Your task to perform on an android device: open device folders in google photos Image 0: 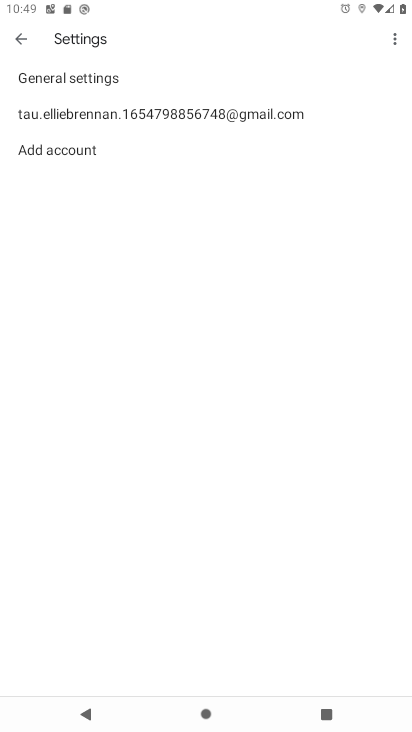
Step 0: press home button
Your task to perform on an android device: open device folders in google photos Image 1: 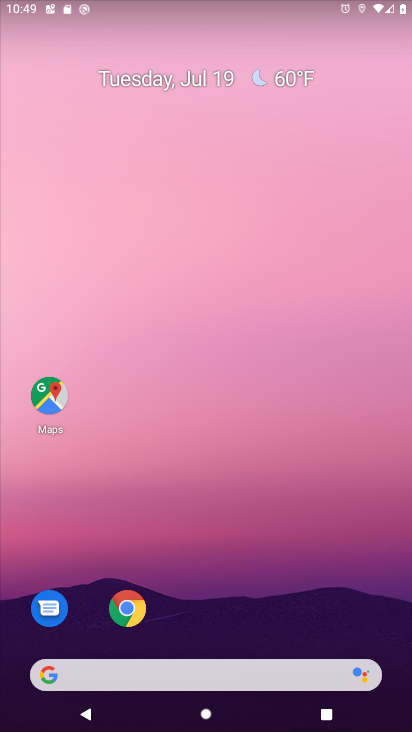
Step 1: drag from (190, 629) to (182, 11)
Your task to perform on an android device: open device folders in google photos Image 2: 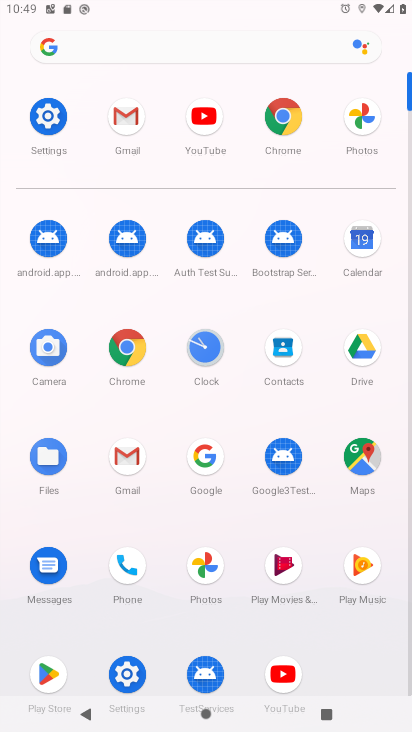
Step 2: click (206, 582)
Your task to perform on an android device: open device folders in google photos Image 3: 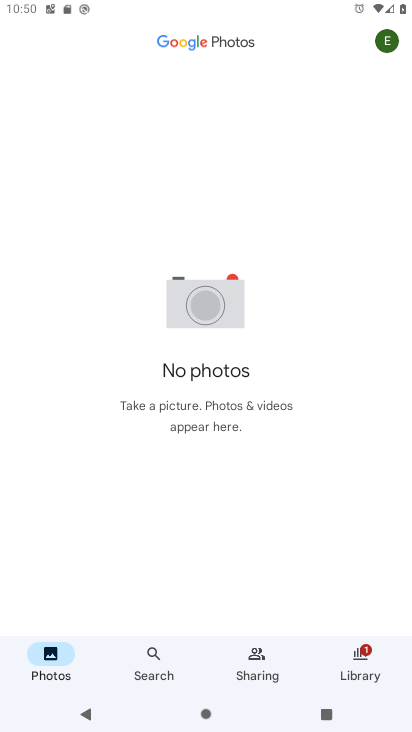
Step 3: click (373, 60)
Your task to perform on an android device: open device folders in google photos Image 4: 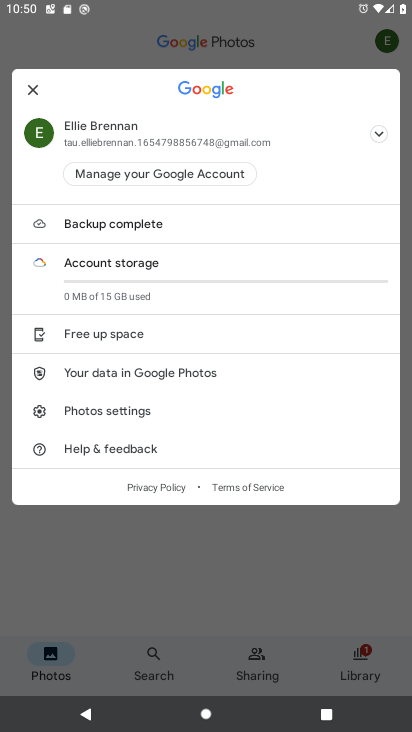
Step 4: click (100, 541)
Your task to perform on an android device: open device folders in google photos Image 5: 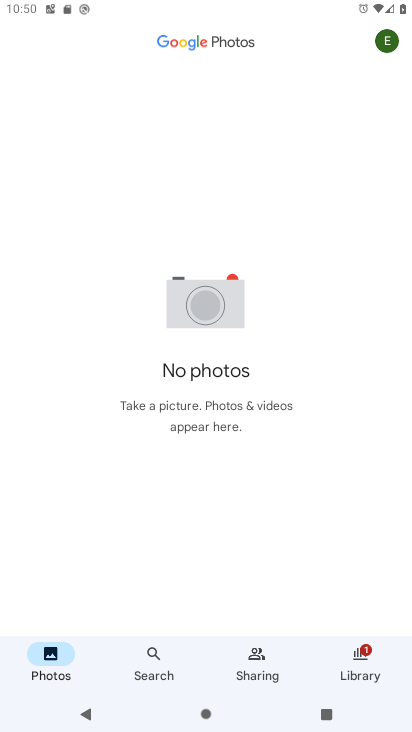
Step 5: click (260, 662)
Your task to perform on an android device: open device folders in google photos Image 6: 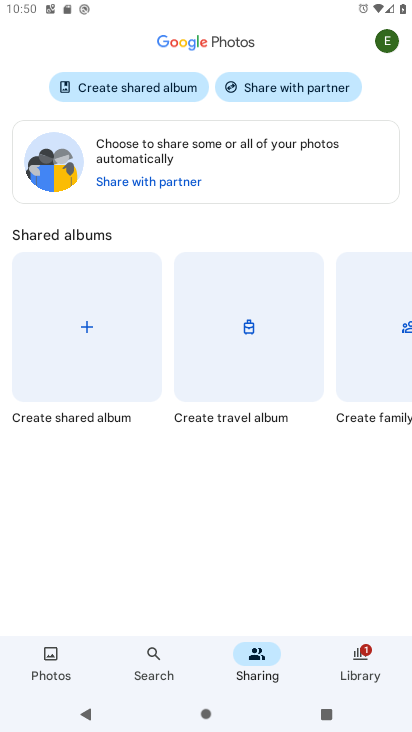
Step 6: click (362, 646)
Your task to perform on an android device: open device folders in google photos Image 7: 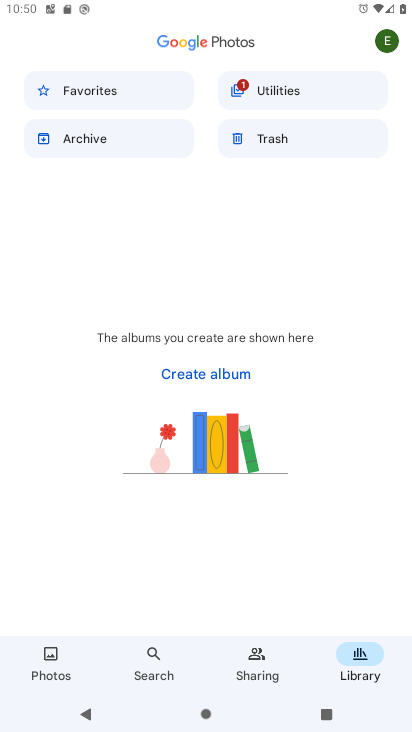
Step 7: click (380, 45)
Your task to perform on an android device: open device folders in google photos Image 8: 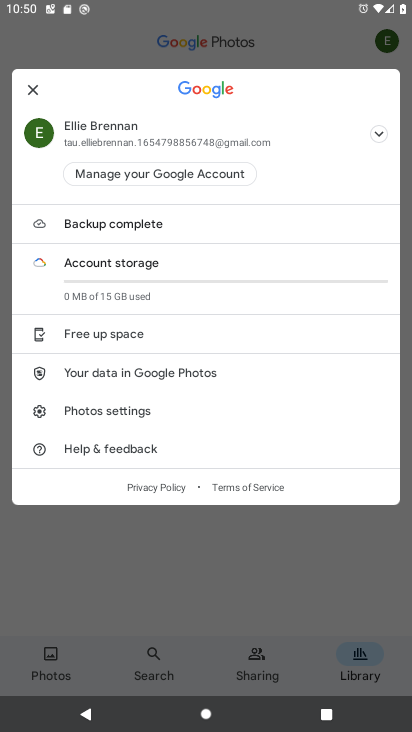
Step 8: click (250, 581)
Your task to perform on an android device: open device folders in google photos Image 9: 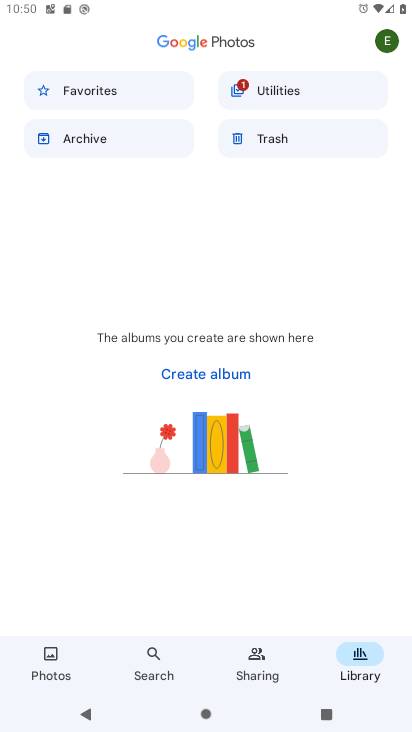
Step 9: task complete